Your task to perform on an android device: check the backup settings in the google photos Image 0: 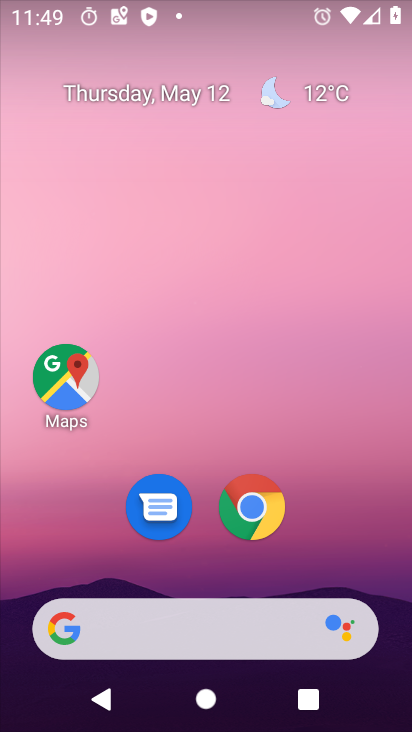
Step 0: drag from (213, 565) to (309, 2)
Your task to perform on an android device: check the backup settings in the google photos Image 1: 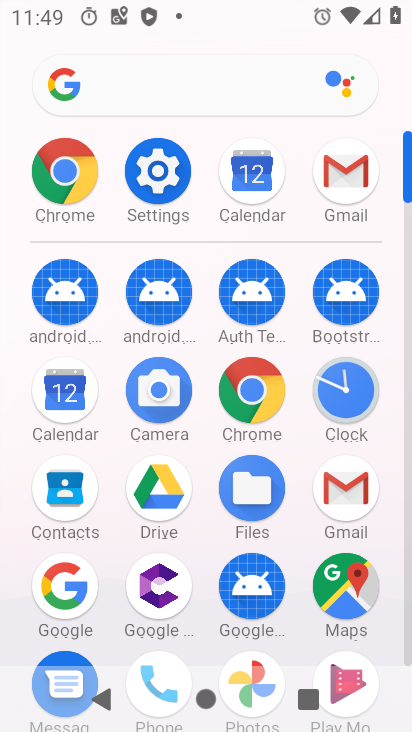
Step 1: drag from (258, 566) to (324, 138)
Your task to perform on an android device: check the backup settings in the google photos Image 2: 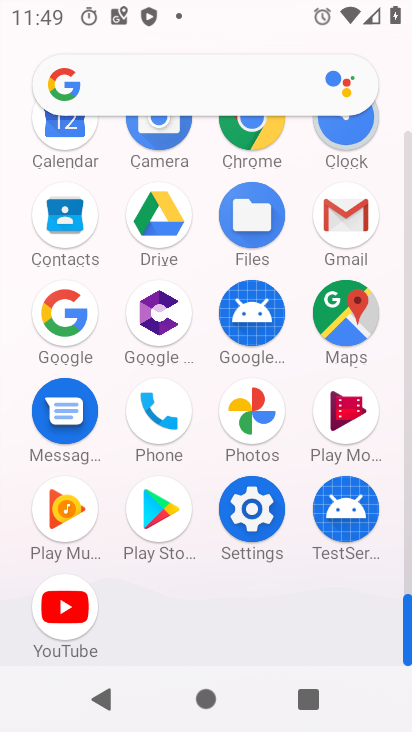
Step 2: click (261, 422)
Your task to perform on an android device: check the backup settings in the google photos Image 3: 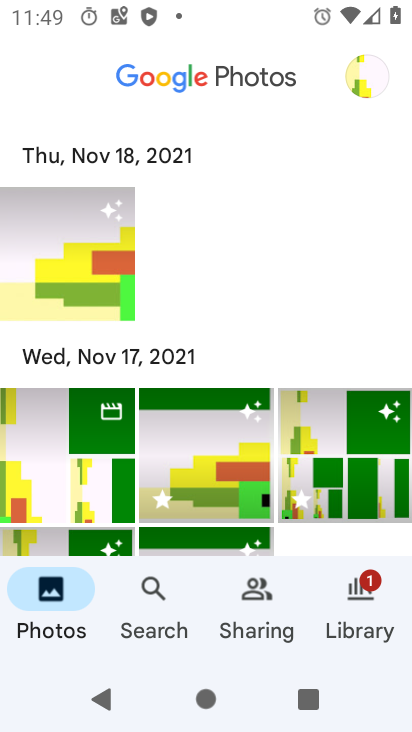
Step 3: click (370, 73)
Your task to perform on an android device: check the backup settings in the google photos Image 4: 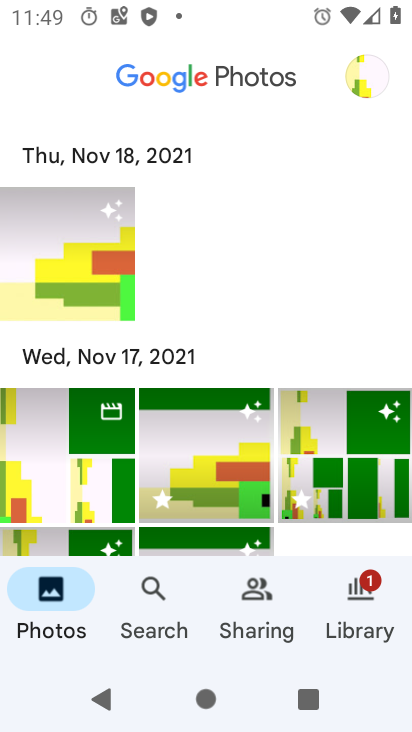
Step 4: click (371, 77)
Your task to perform on an android device: check the backup settings in the google photos Image 5: 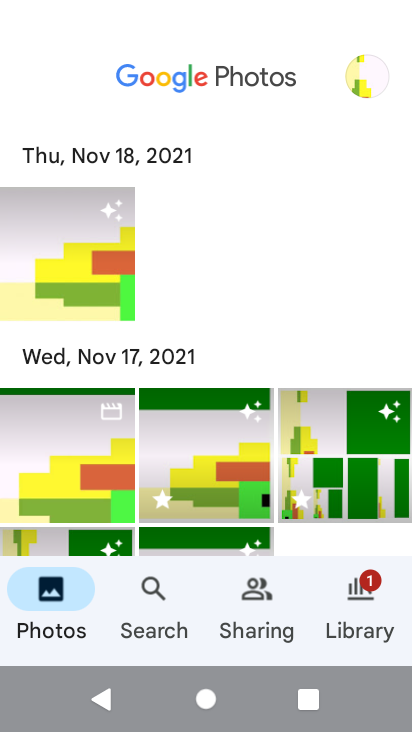
Step 5: click (369, 88)
Your task to perform on an android device: check the backup settings in the google photos Image 6: 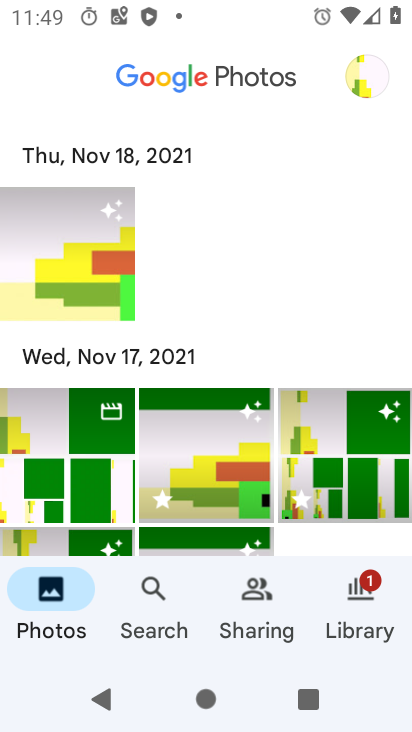
Step 6: click (366, 88)
Your task to perform on an android device: check the backup settings in the google photos Image 7: 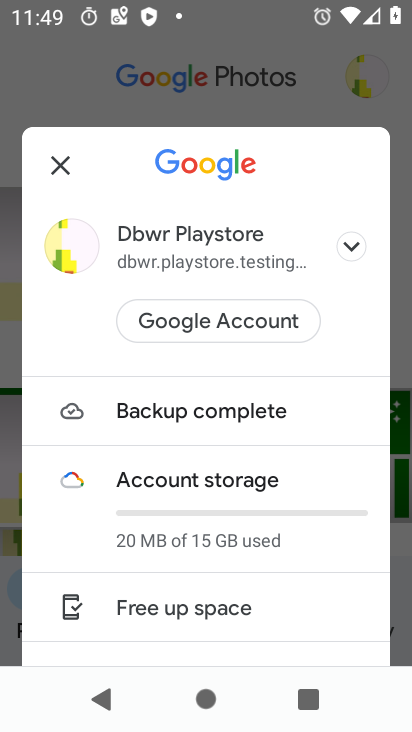
Step 7: drag from (236, 545) to (325, 130)
Your task to perform on an android device: check the backup settings in the google photos Image 8: 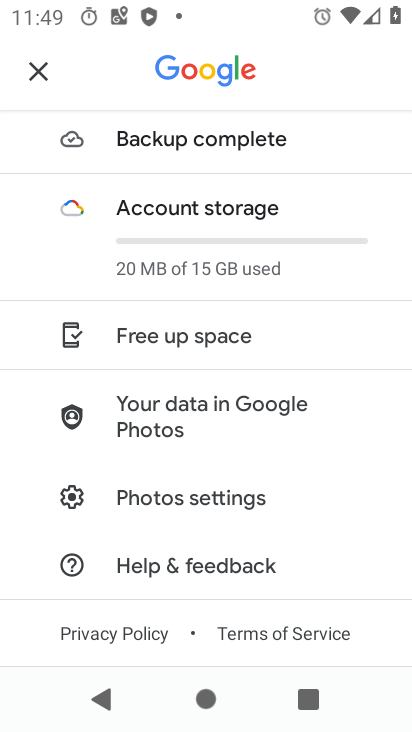
Step 8: click (225, 508)
Your task to perform on an android device: check the backup settings in the google photos Image 9: 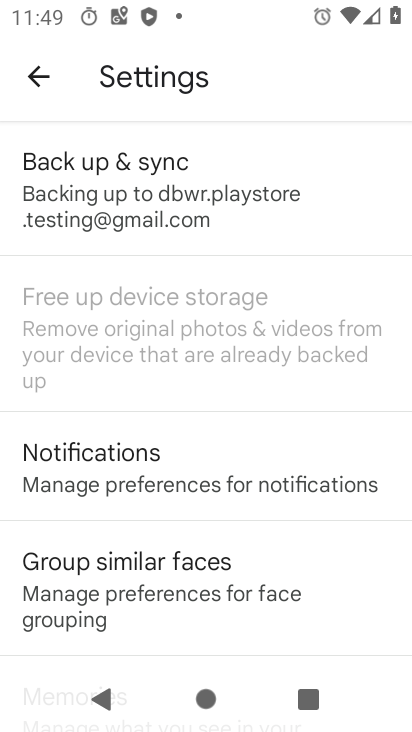
Step 9: click (196, 218)
Your task to perform on an android device: check the backup settings in the google photos Image 10: 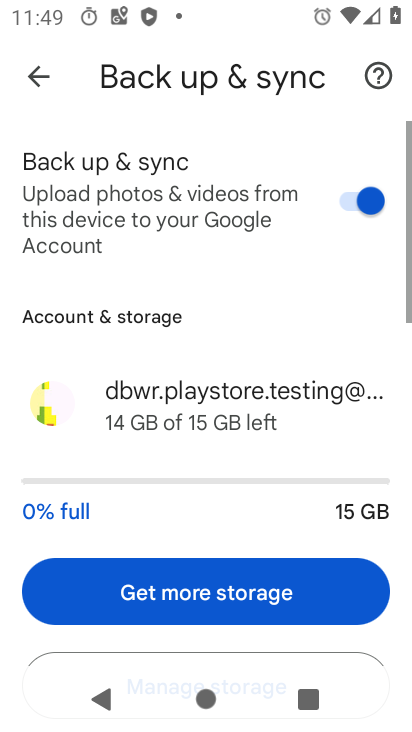
Step 10: task complete